Your task to perform on an android device: turn notification dots off Image 0: 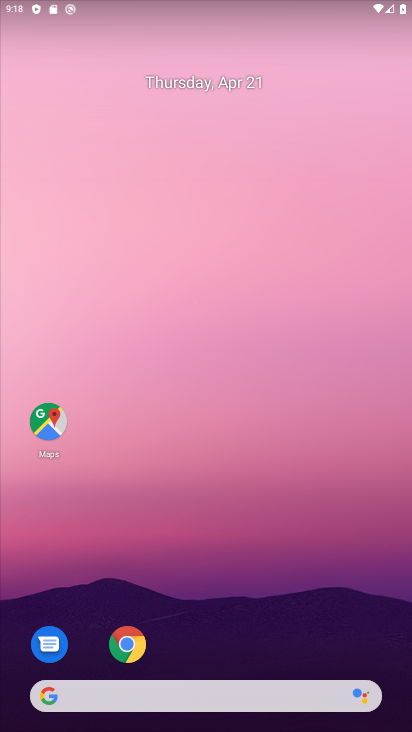
Step 0: click (185, 193)
Your task to perform on an android device: turn notification dots off Image 1: 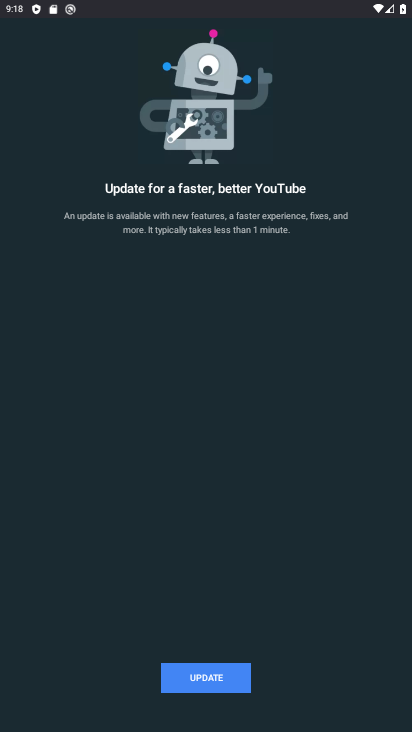
Step 1: press back button
Your task to perform on an android device: turn notification dots off Image 2: 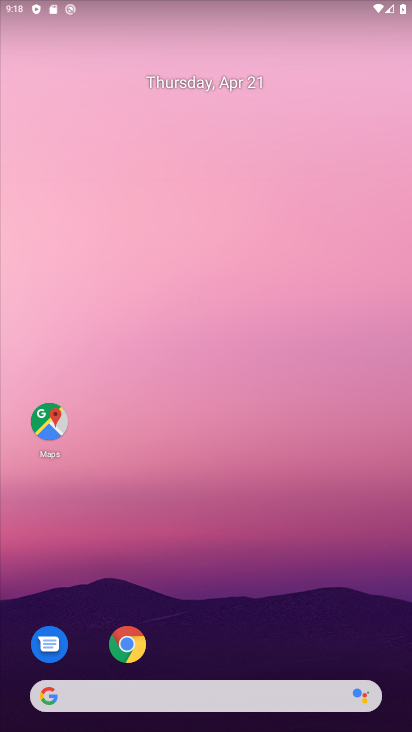
Step 2: drag from (282, 633) to (194, 74)
Your task to perform on an android device: turn notification dots off Image 3: 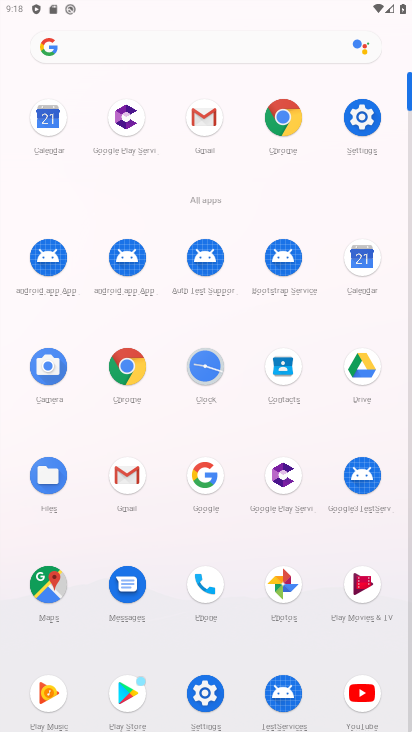
Step 3: click (366, 127)
Your task to perform on an android device: turn notification dots off Image 4: 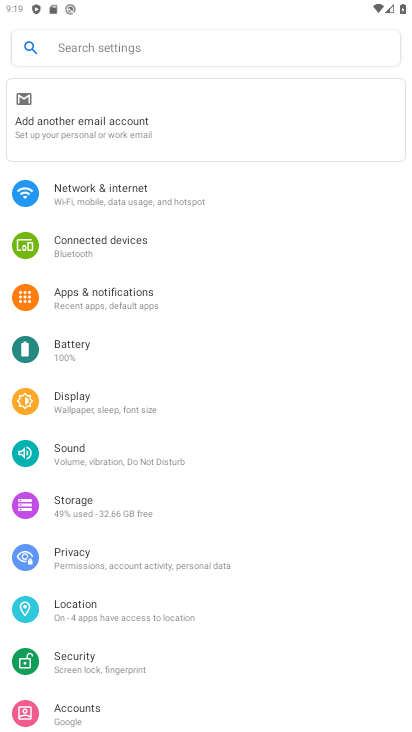
Step 4: click (265, 308)
Your task to perform on an android device: turn notification dots off Image 5: 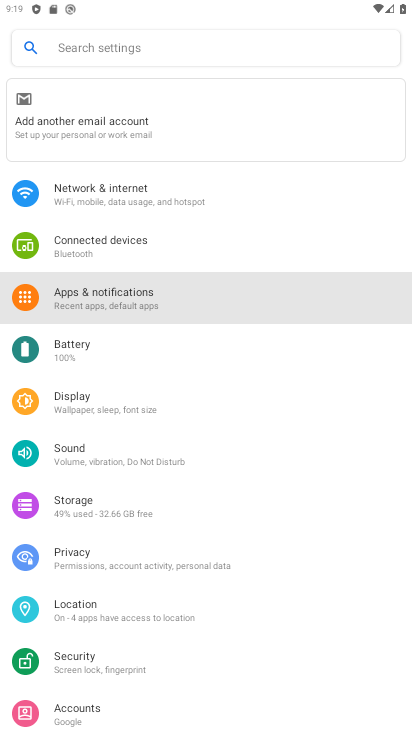
Step 5: click (265, 308)
Your task to perform on an android device: turn notification dots off Image 6: 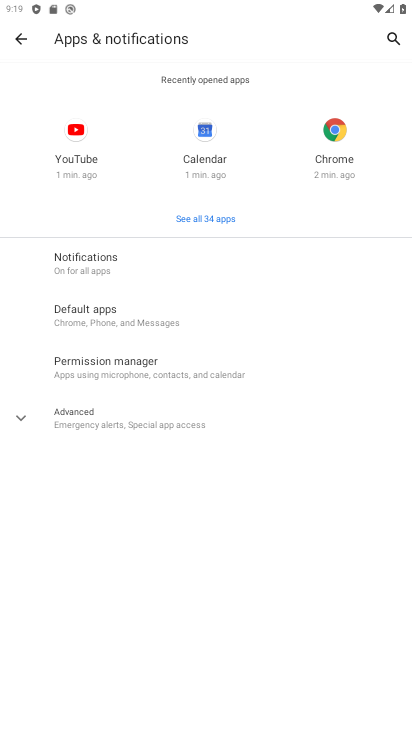
Step 6: click (249, 260)
Your task to perform on an android device: turn notification dots off Image 7: 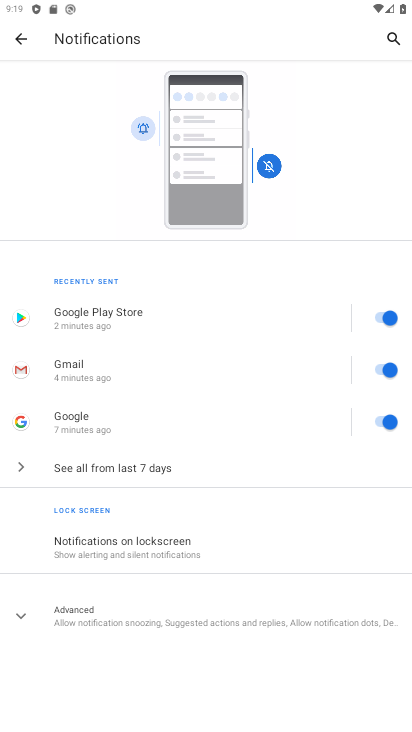
Step 7: click (205, 613)
Your task to perform on an android device: turn notification dots off Image 8: 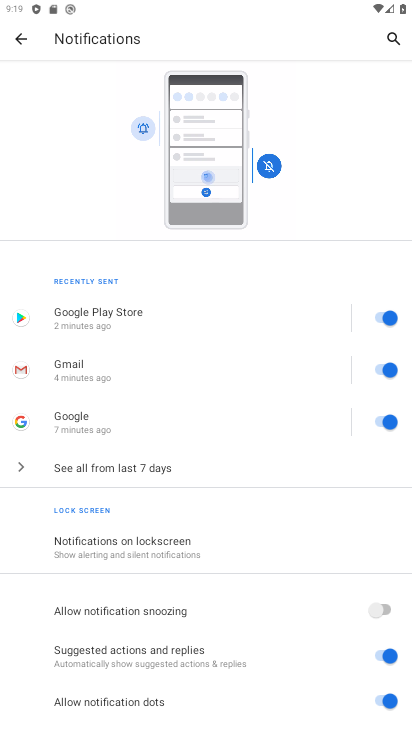
Step 8: drag from (245, 628) to (264, 277)
Your task to perform on an android device: turn notification dots off Image 9: 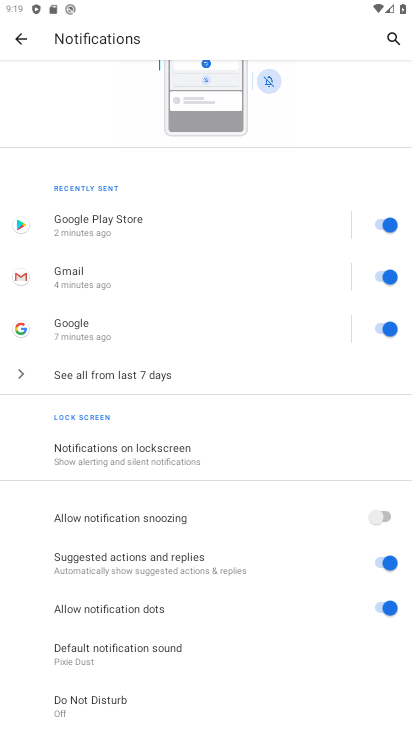
Step 9: click (377, 608)
Your task to perform on an android device: turn notification dots off Image 10: 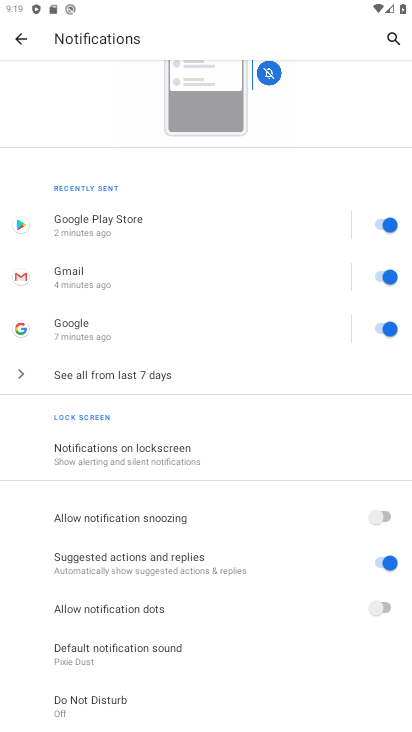
Step 10: task complete